Your task to perform on an android device: Set the phone to "Do not disturb". Image 0: 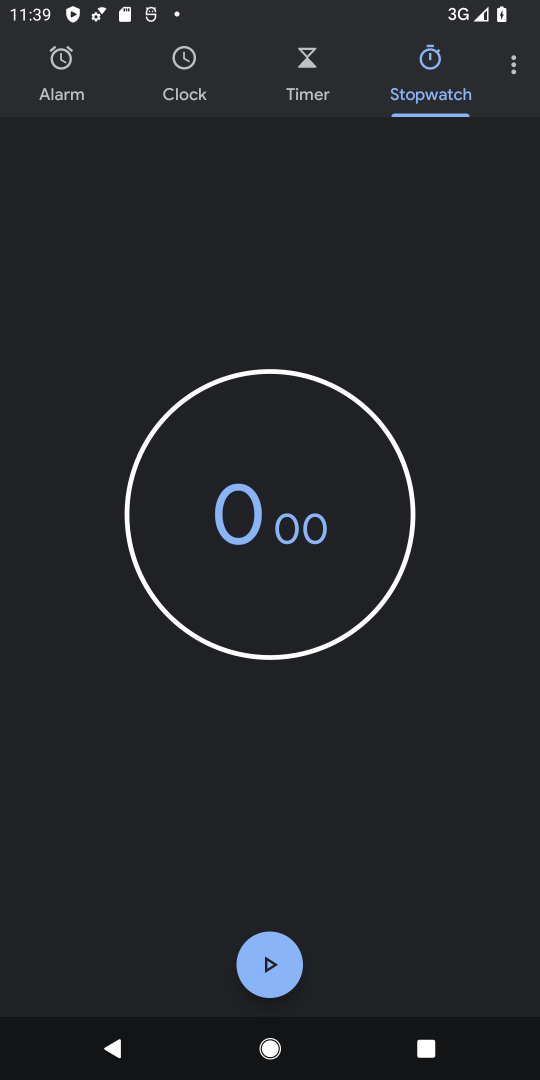
Step 0: press home button
Your task to perform on an android device: Set the phone to "Do not disturb". Image 1: 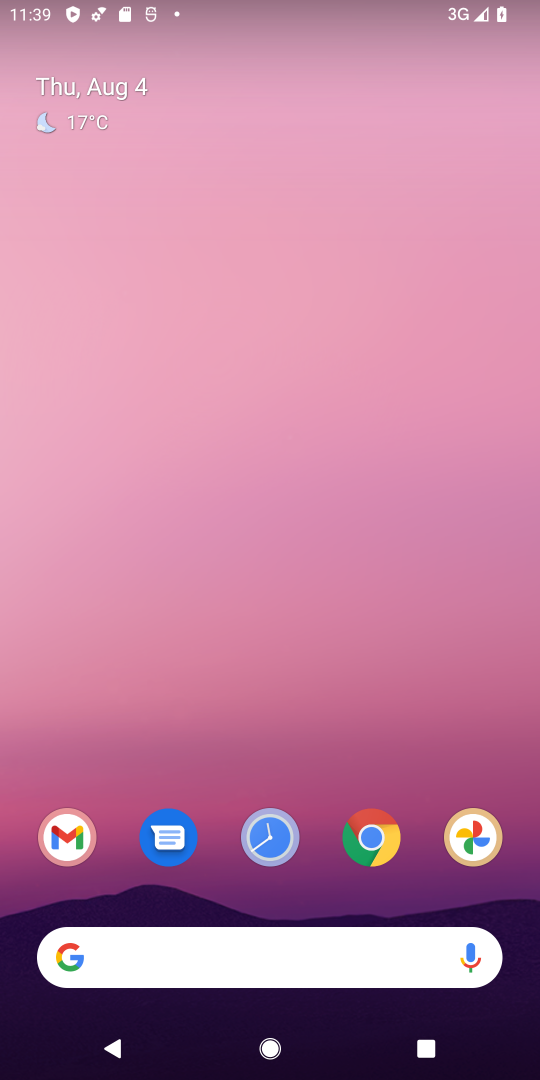
Step 1: drag from (424, 730) to (324, 54)
Your task to perform on an android device: Set the phone to "Do not disturb". Image 2: 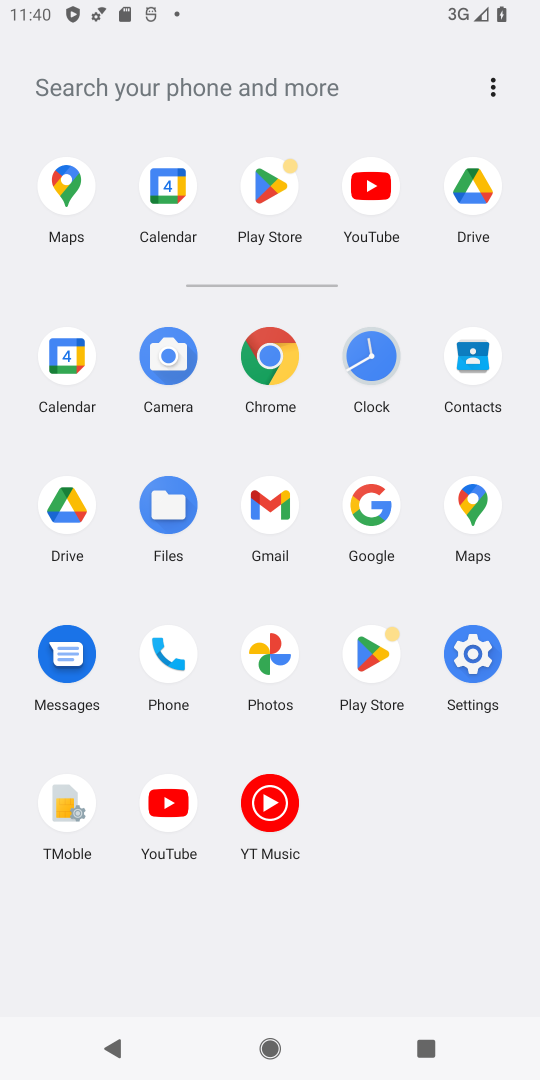
Step 2: drag from (223, 25) to (304, 963)
Your task to perform on an android device: Set the phone to "Do not disturb". Image 3: 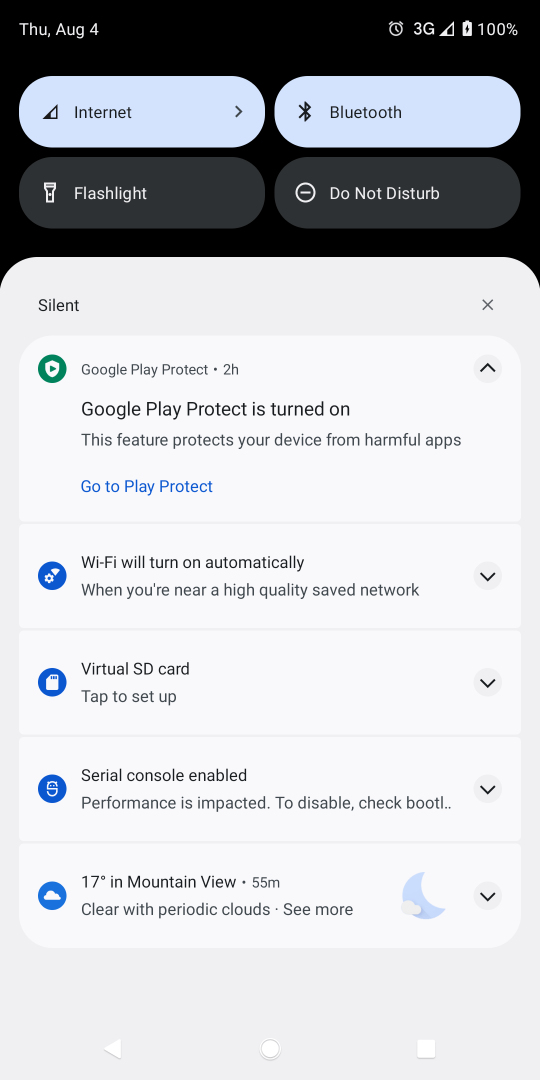
Step 3: click (324, 191)
Your task to perform on an android device: Set the phone to "Do not disturb". Image 4: 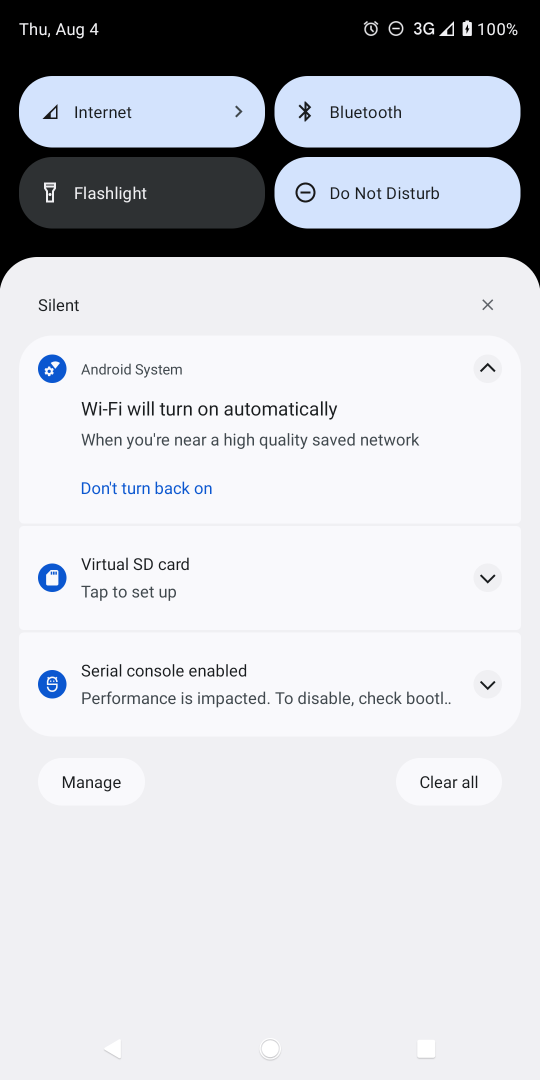
Step 4: task complete